Your task to perform on an android device: Open network settings Image 0: 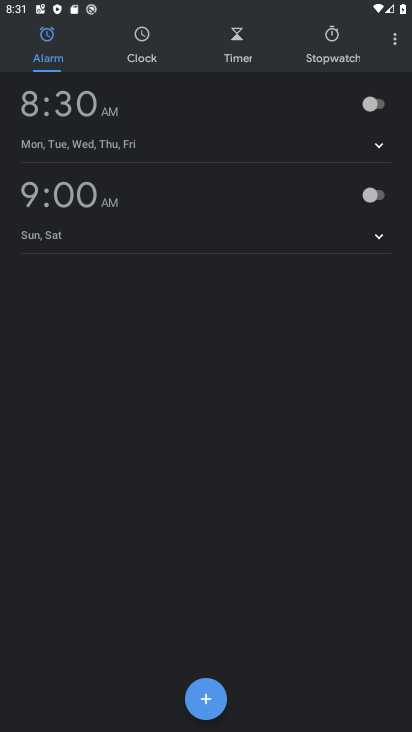
Step 0: press home button
Your task to perform on an android device: Open network settings Image 1: 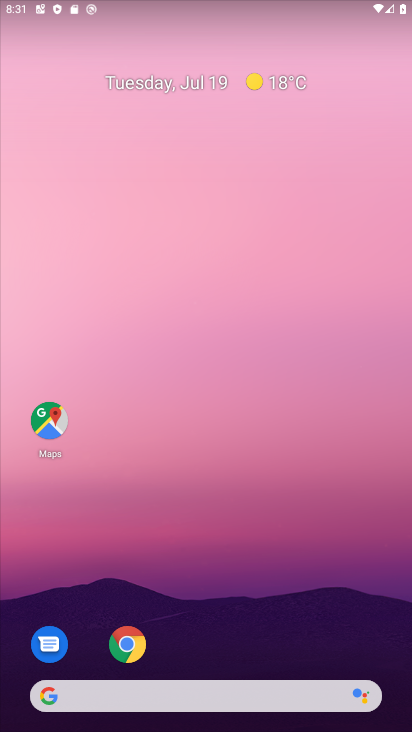
Step 1: drag from (211, 730) to (208, 2)
Your task to perform on an android device: Open network settings Image 2: 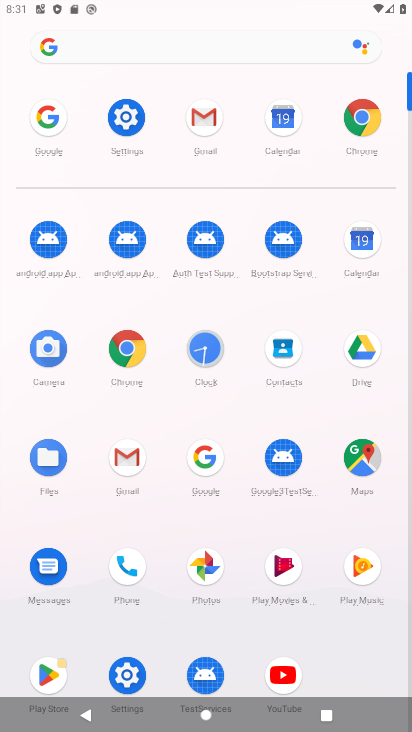
Step 2: click (123, 119)
Your task to perform on an android device: Open network settings Image 3: 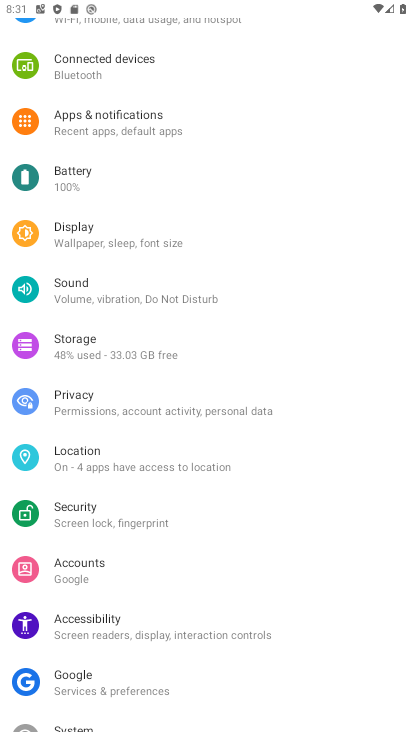
Step 3: drag from (105, 80) to (104, 483)
Your task to perform on an android device: Open network settings Image 4: 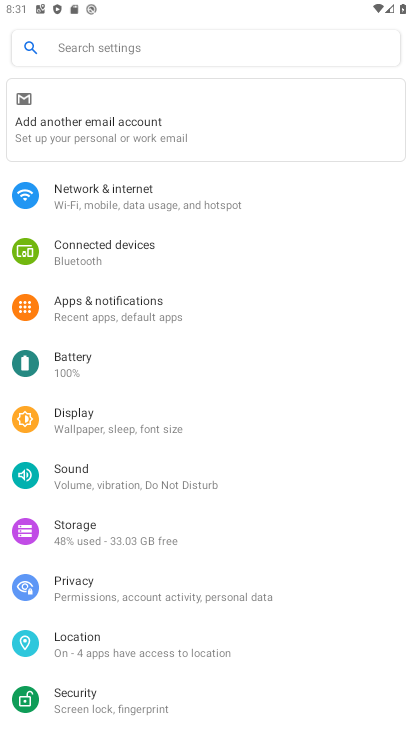
Step 4: click (126, 200)
Your task to perform on an android device: Open network settings Image 5: 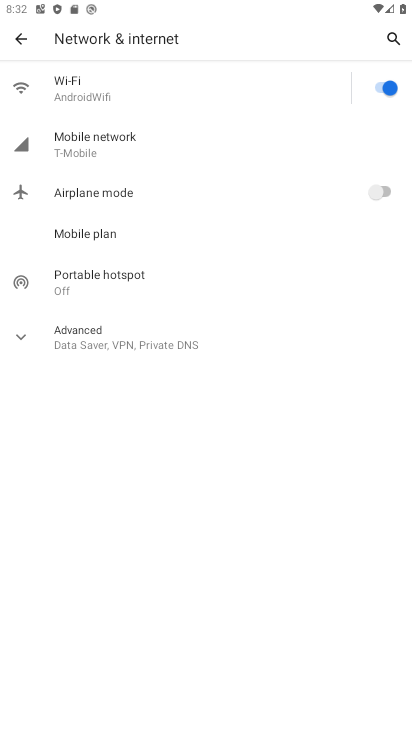
Step 5: task complete